Your task to perform on an android device: empty trash in google photos Image 0: 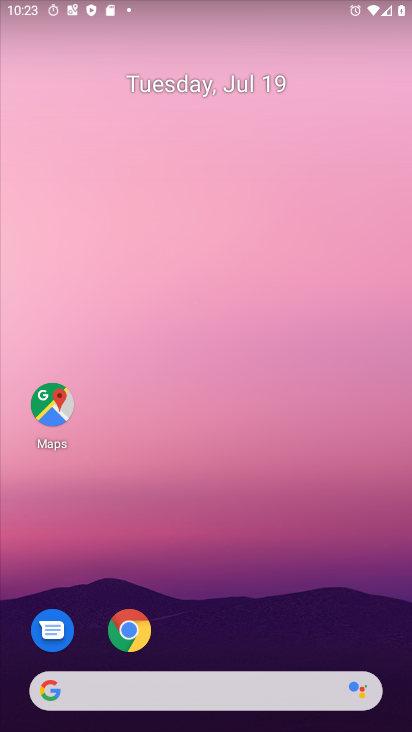
Step 0: press home button
Your task to perform on an android device: empty trash in google photos Image 1: 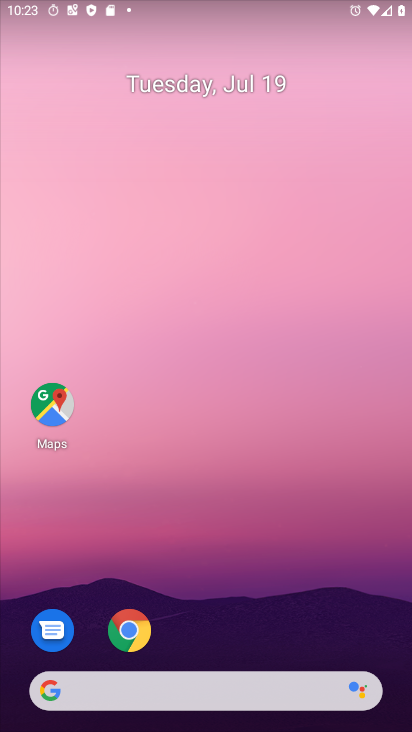
Step 1: drag from (276, 631) to (209, 56)
Your task to perform on an android device: empty trash in google photos Image 2: 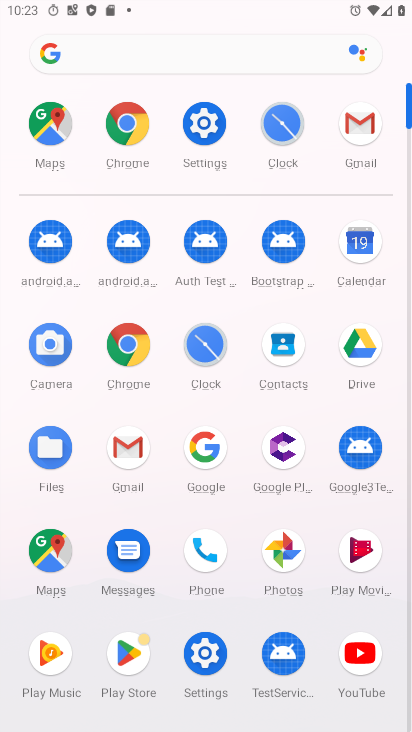
Step 2: click (290, 560)
Your task to perform on an android device: empty trash in google photos Image 3: 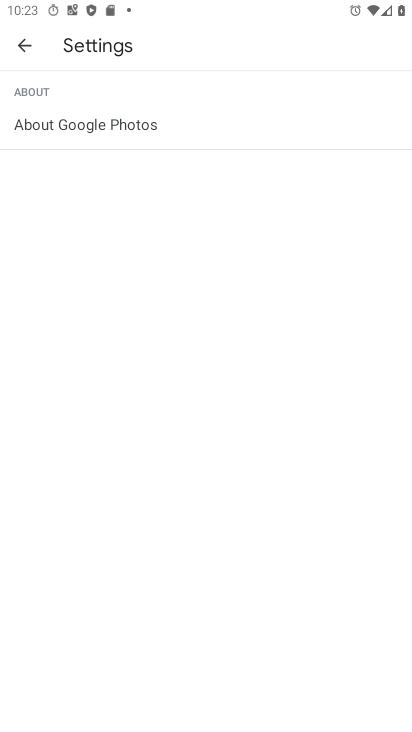
Step 3: click (17, 37)
Your task to perform on an android device: empty trash in google photos Image 4: 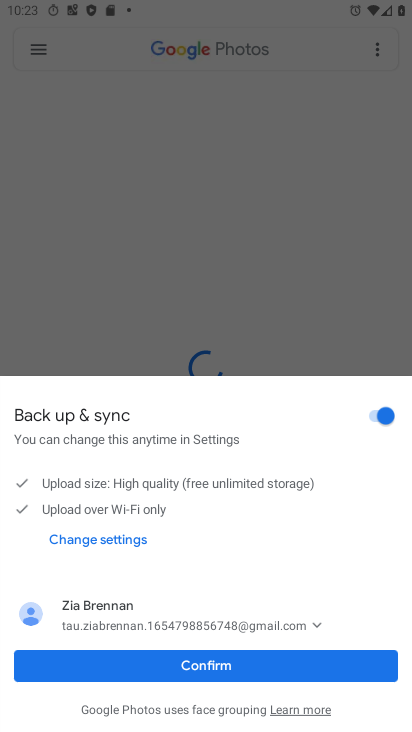
Step 4: click (199, 671)
Your task to perform on an android device: empty trash in google photos Image 5: 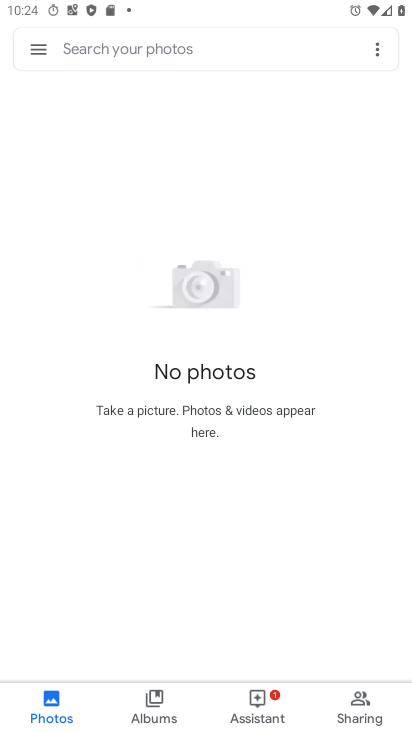
Step 5: click (32, 49)
Your task to perform on an android device: empty trash in google photos Image 6: 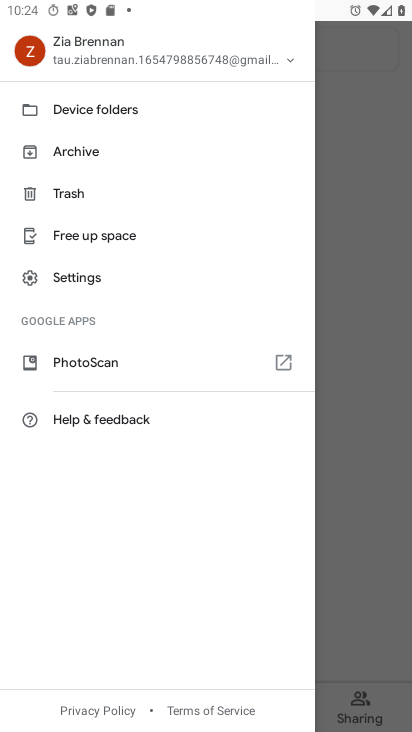
Step 6: click (63, 195)
Your task to perform on an android device: empty trash in google photos Image 7: 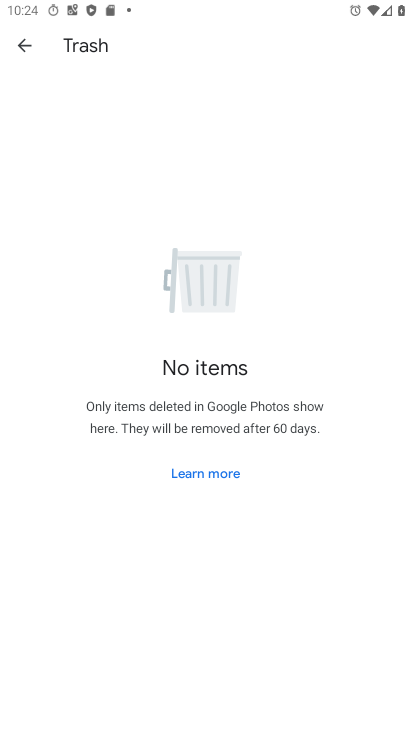
Step 7: task complete